Your task to perform on an android device: Open Google Maps Image 0: 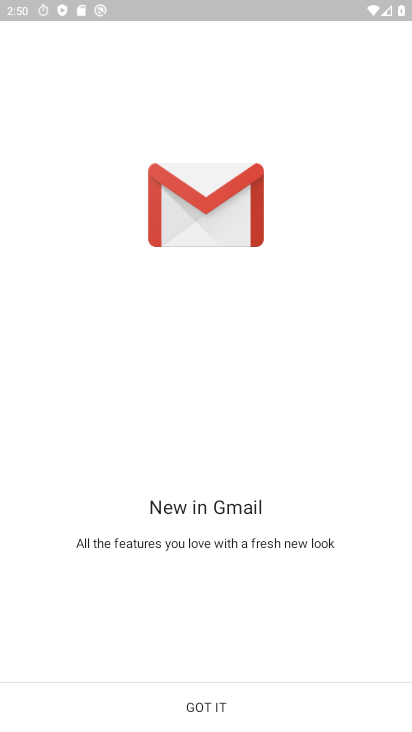
Step 0: press home button
Your task to perform on an android device: Open Google Maps Image 1: 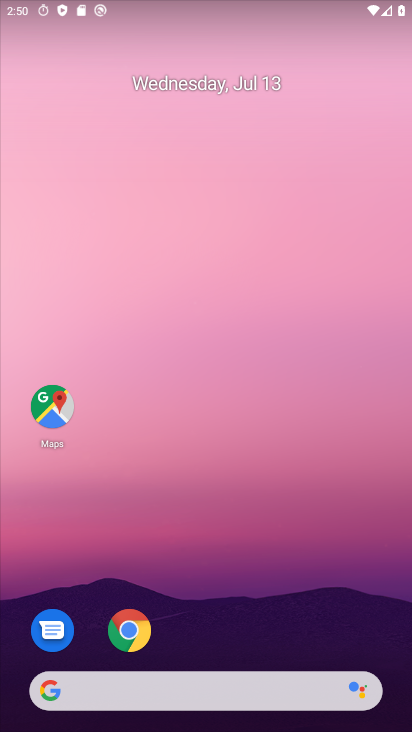
Step 1: click (55, 400)
Your task to perform on an android device: Open Google Maps Image 2: 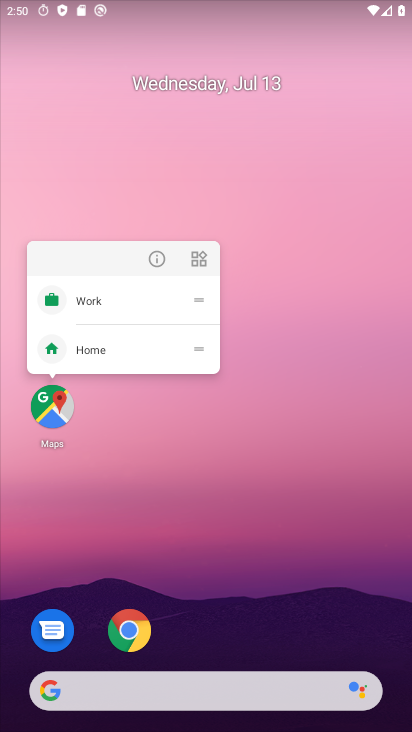
Step 2: click (59, 414)
Your task to perform on an android device: Open Google Maps Image 3: 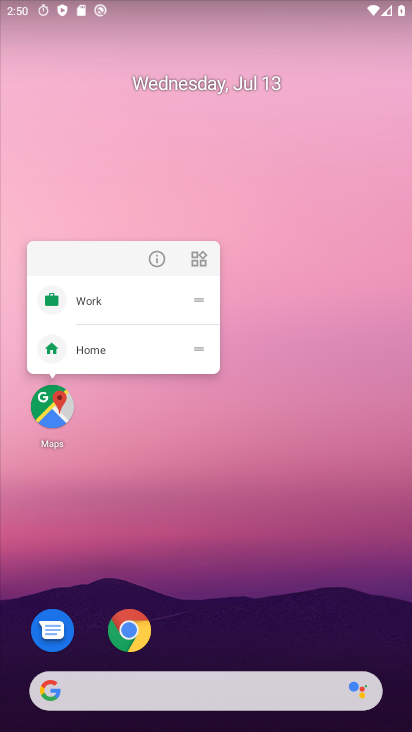
Step 3: click (57, 419)
Your task to perform on an android device: Open Google Maps Image 4: 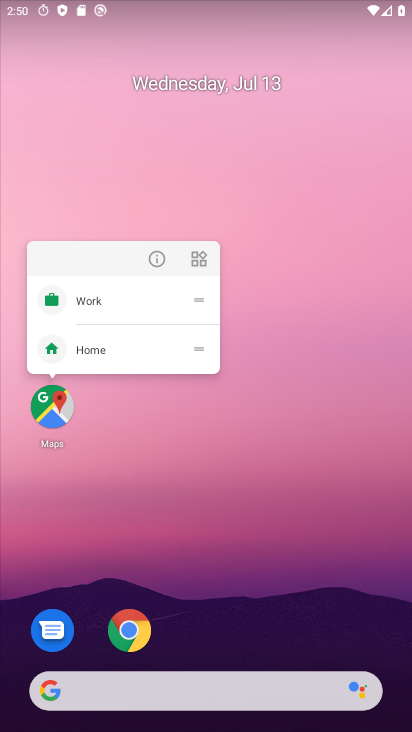
Step 4: click (54, 416)
Your task to perform on an android device: Open Google Maps Image 5: 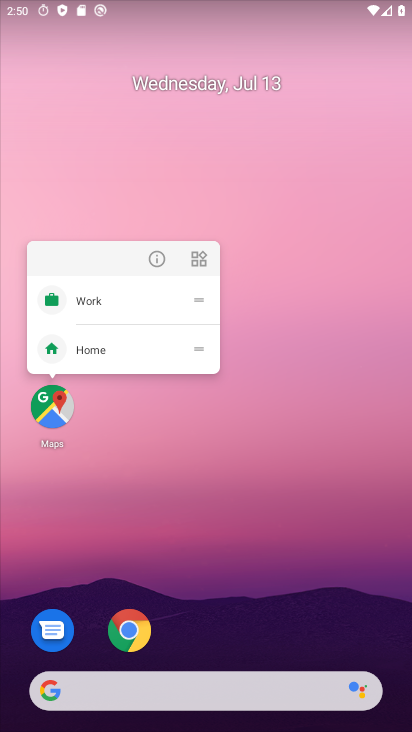
Step 5: click (54, 416)
Your task to perform on an android device: Open Google Maps Image 6: 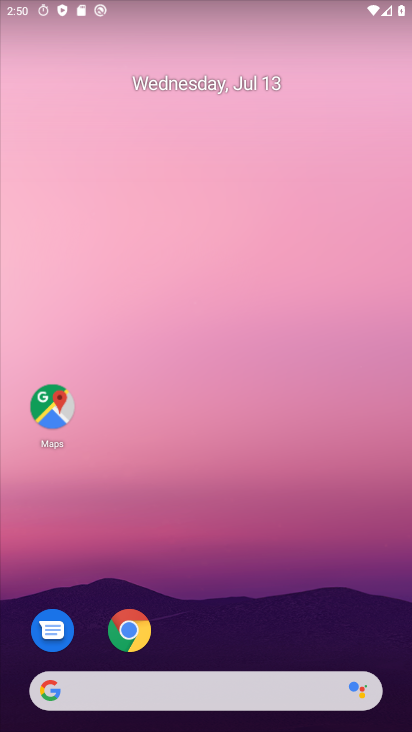
Step 6: click (54, 416)
Your task to perform on an android device: Open Google Maps Image 7: 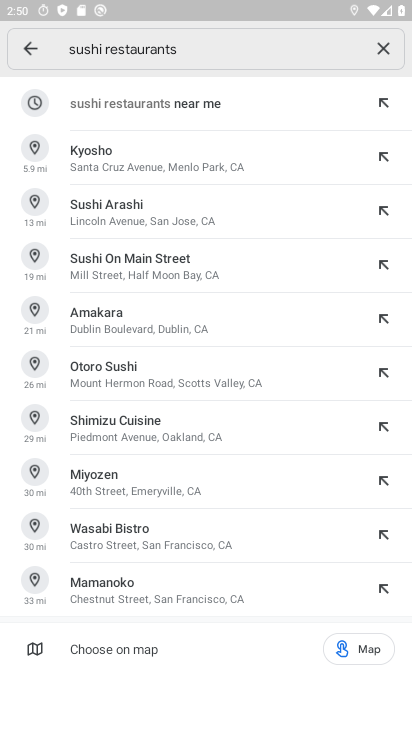
Step 7: click (376, 46)
Your task to perform on an android device: Open Google Maps Image 8: 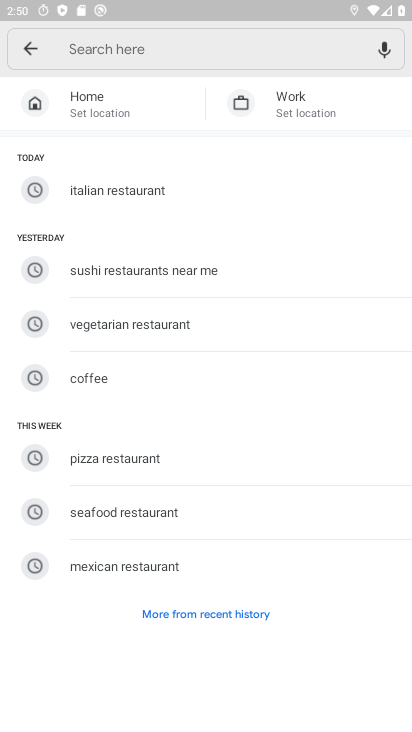
Step 8: click (25, 48)
Your task to perform on an android device: Open Google Maps Image 9: 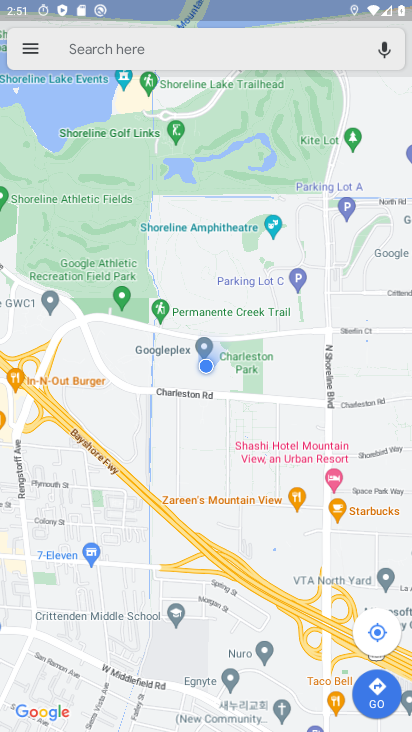
Step 9: task complete